Your task to perform on an android device: open a bookmark in the chrome app Image 0: 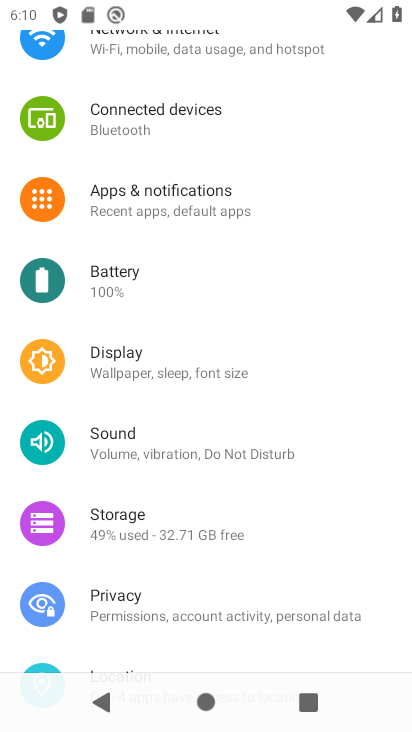
Step 0: press home button
Your task to perform on an android device: open a bookmark in the chrome app Image 1: 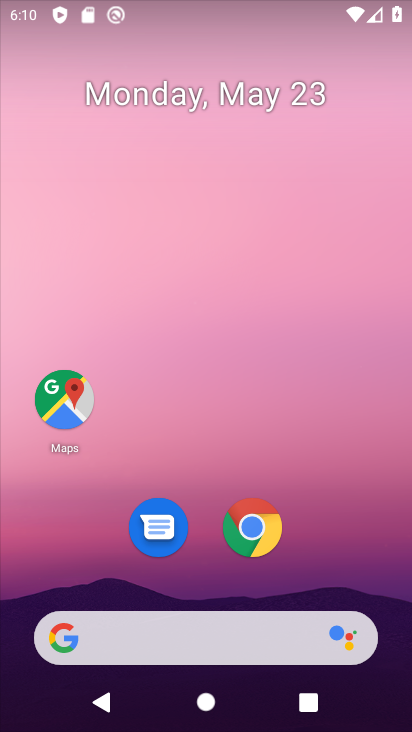
Step 1: click (259, 515)
Your task to perform on an android device: open a bookmark in the chrome app Image 2: 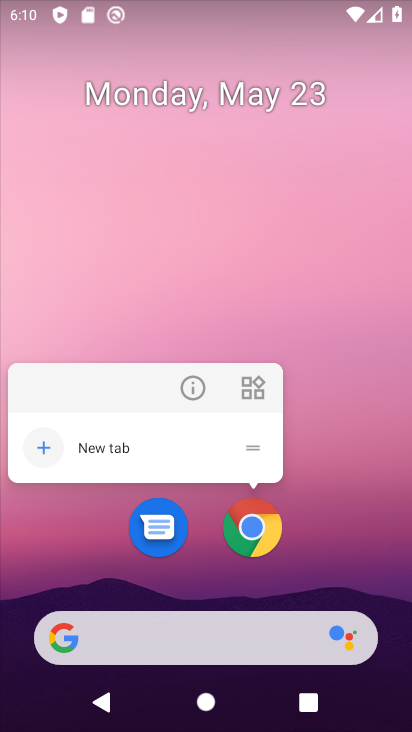
Step 2: click (250, 533)
Your task to perform on an android device: open a bookmark in the chrome app Image 3: 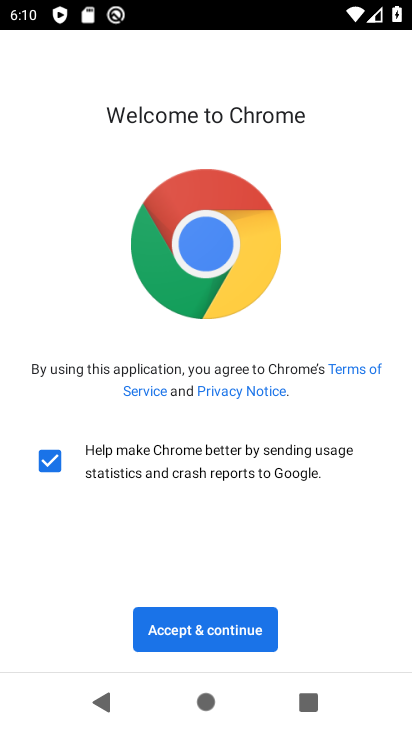
Step 3: click (202, 620)
Your task to perform on an android device: open a bookmark in the chrome app Image 4: 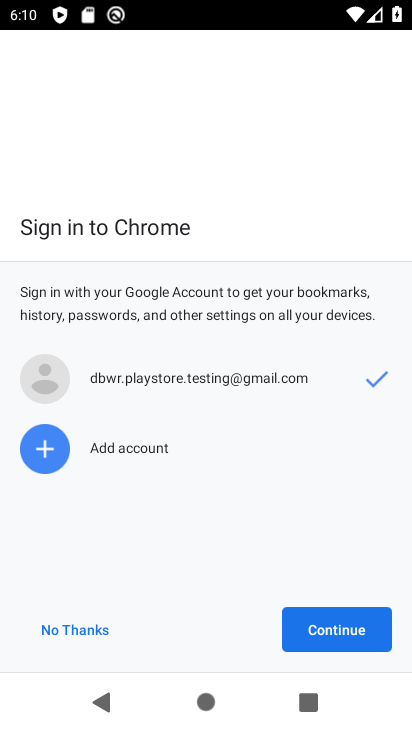
Step 4: click (347, 631)
Your task to perform on an android device: open a bookmark in the chrome app Image 5: 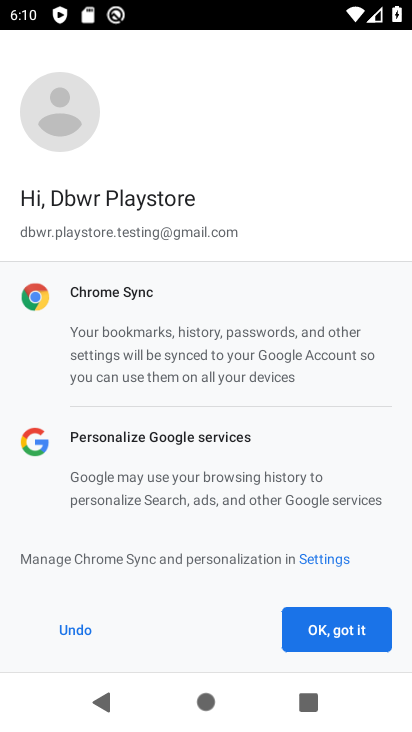
Step 5: click (347, 631)
Your task to perform on an android device: open a bookmark in the chrome app Image 6: 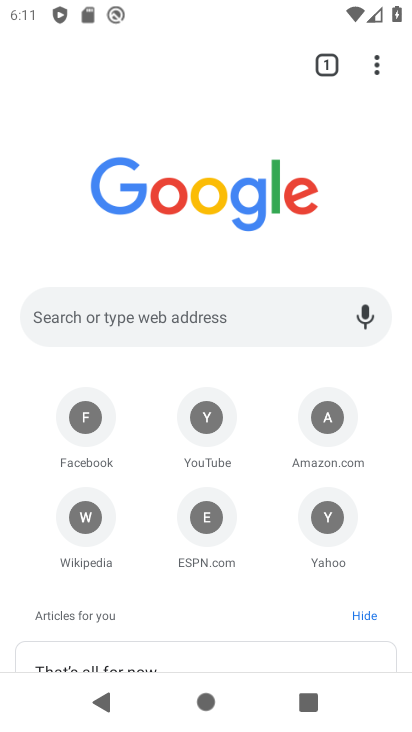
Step 6: task complete